Your task to perform on an android device: Is it going to rain this weekend? Image 0: 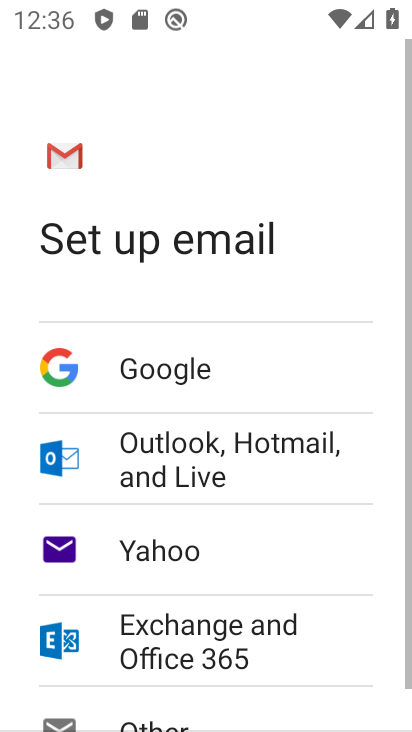
Step 0: press home button
Your task to perform on an android device: Is it going to rain this weekend? Image 1: 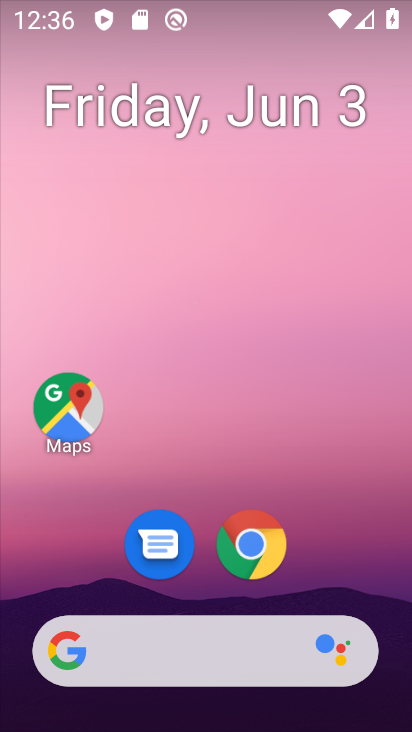
Step 1: click (142, 640)
Your task to perform on an android device: Is it going to rain this weekend? Image 2: 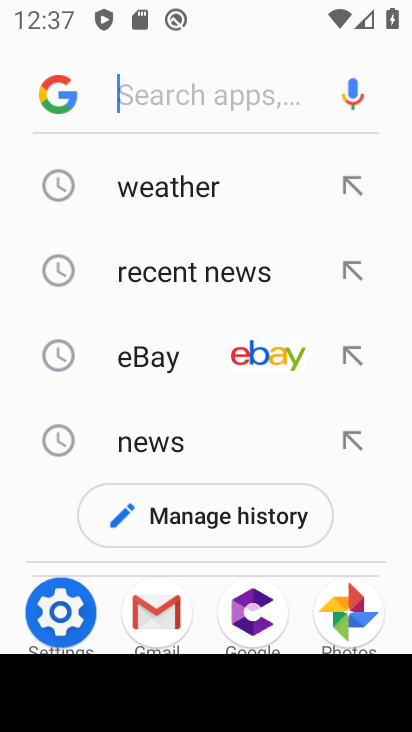
Step 2: type "is it going to rain this weekend"
Your task to perform on an android device: Is it going to rain this weekend? Image 3: 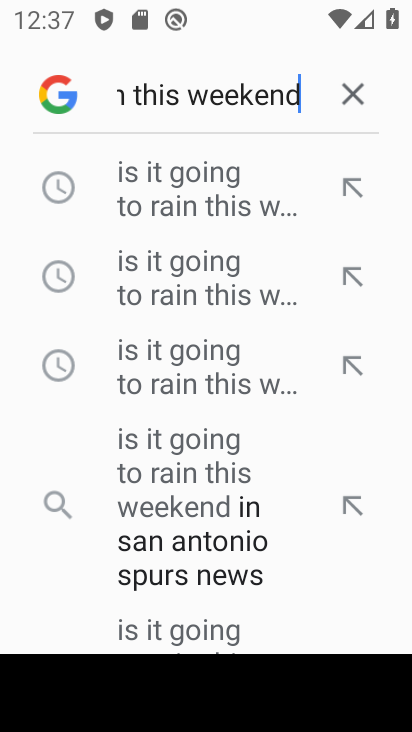
Step 3: click (252, 201)
Your task to perform on an android device: Is it going to rain this weekend? Image 4: 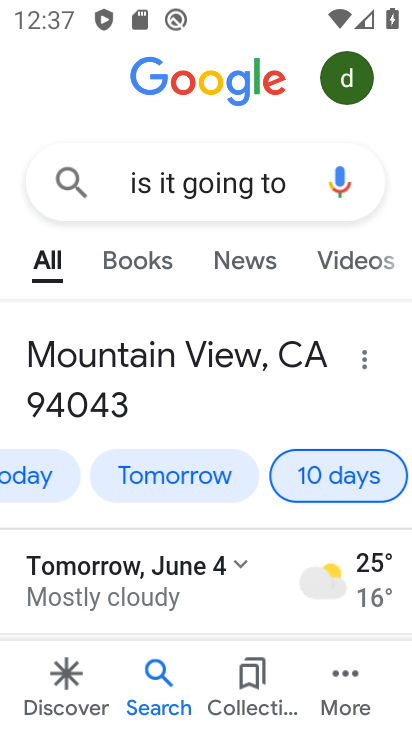
Step 4: task complete